Your task to perform on an android device: turn on translation in the chrome app Image 0: 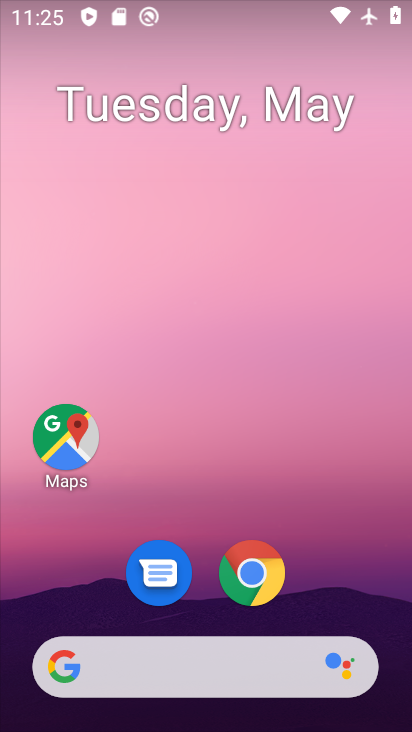
Step 0: click (236, 580)
Your task to perform on an android device: turn on translation in the chrome app Image 1: 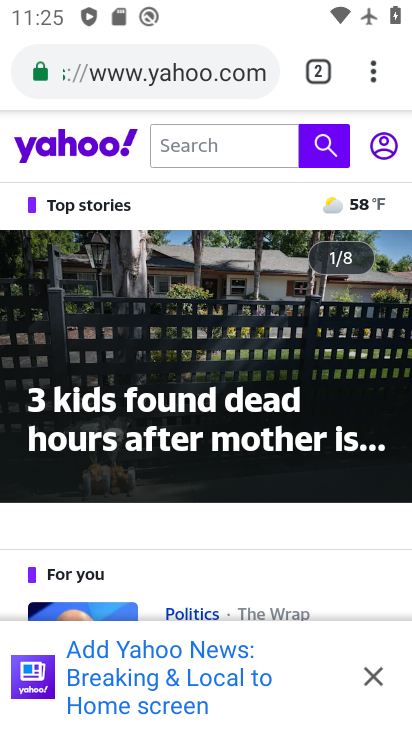
Step 1: click (374, 69)
Your task to perform on an android device: turn on translation in the chrome app Image 2: 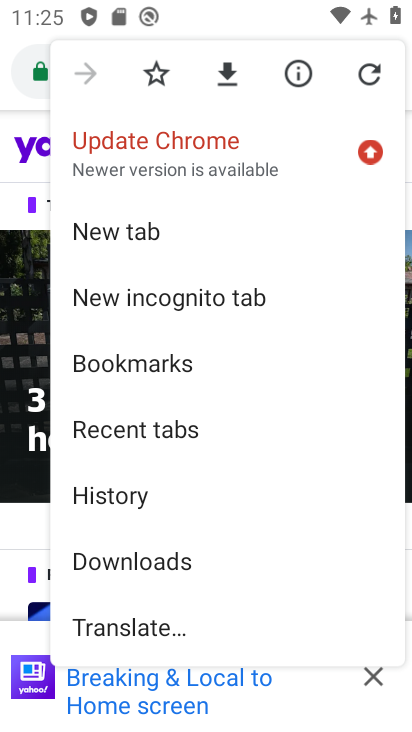
Step 2: drag from (167, 627) to (150, 335)
Your task to perform on an android device: turn on translation in the chrome app Image 3: 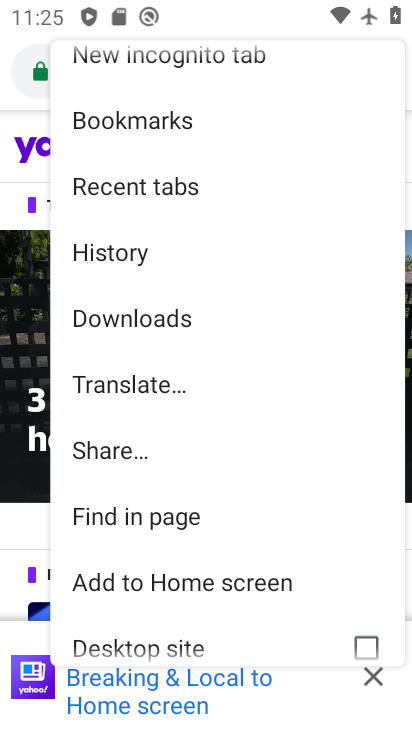
Step 3: drag from (136, 611) to (144, 316)
Your task to perform on an android device: turn on translation in the chrome app Image 4: 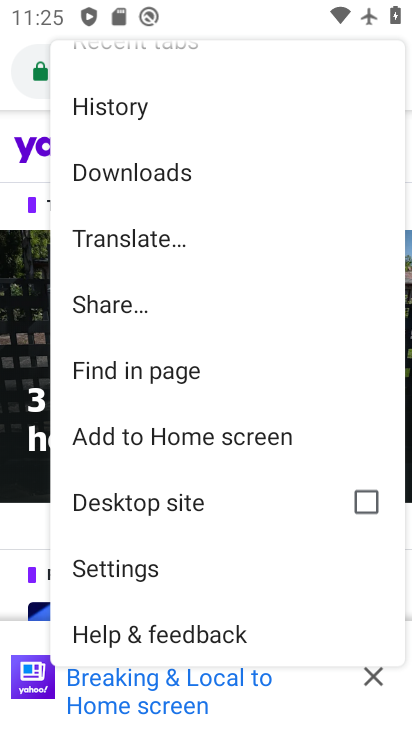
Step 4: drag from (193, 328) to (199, 281)
Your task to perform on an android device: turn on translation in the chrome app Image 5: 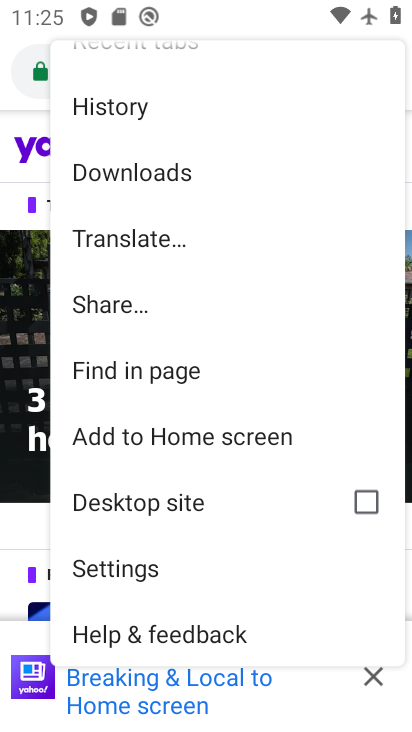
Step 5: click (145, 559)
Your task to perform on an android device: turn on translation in the chrome app Image 6: 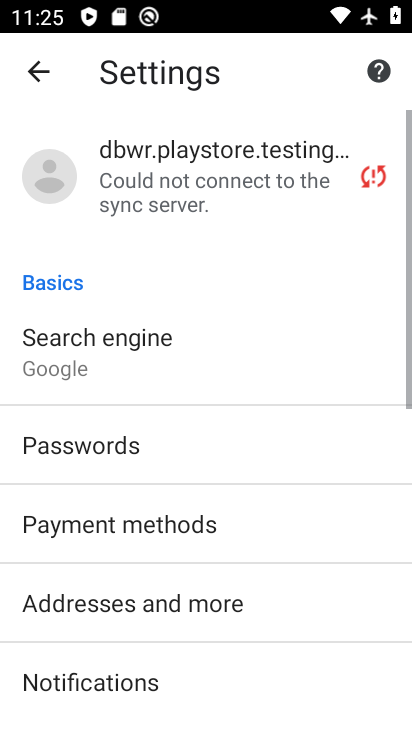
Step 6: click (126, 573)
Your task to perform on an android device: turn on translation in the chrome app Image 7: 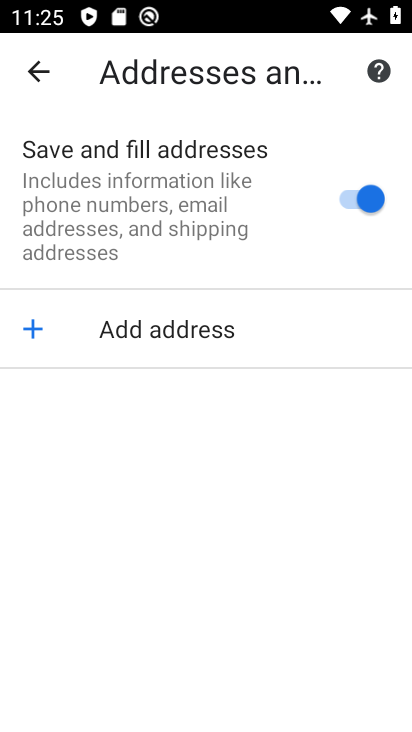
Step 7: click (26, 75)
Your task to perform on an android device: turn on translation in the chrome app Image 8: 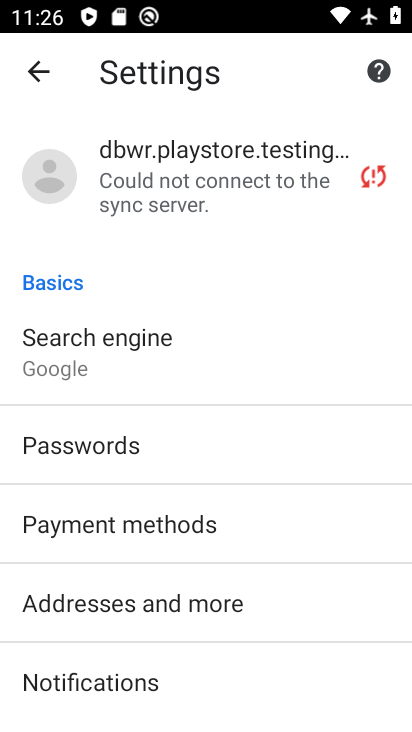
Step 8: drag from (155, 695) to (159, 370)
Your task to perform on an android device: turn on translation in the chrome app Image 9: 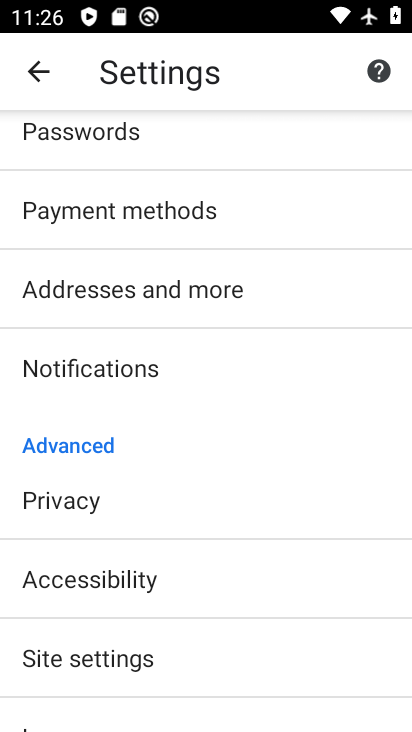
Step 9: drag from (135, 643) to (171, 377)
Your task to perform on an android device: turn on translation in the chrome app Image 10: 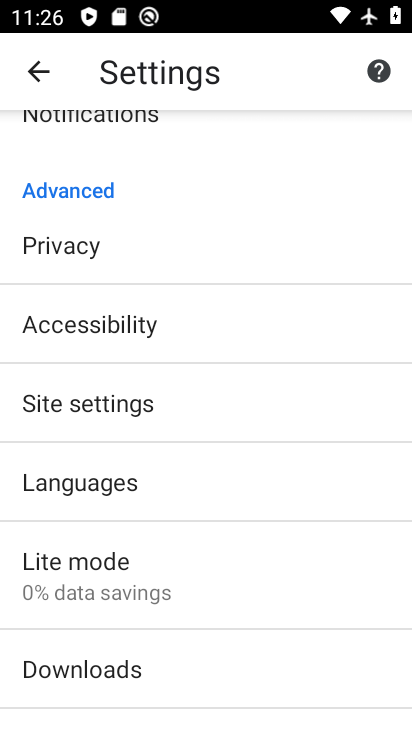
Step 10: click (98, 476)
Your task to perform on an android device: turn on translation in the chrome app Image 11: 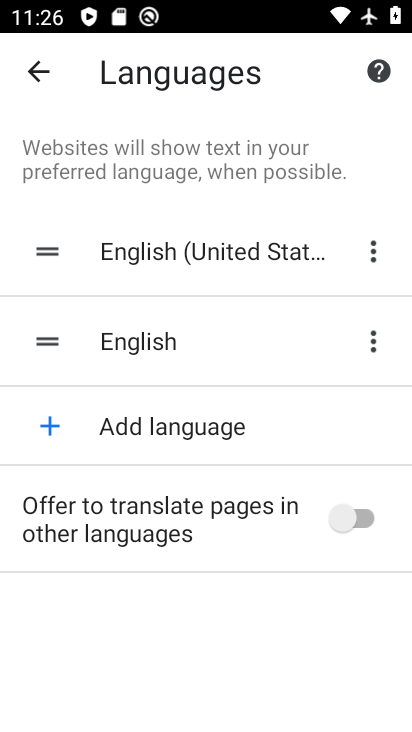
Step 11: click (362, 517)
Your task to perform on an android device: turn on translation in the chrome app Image 12: 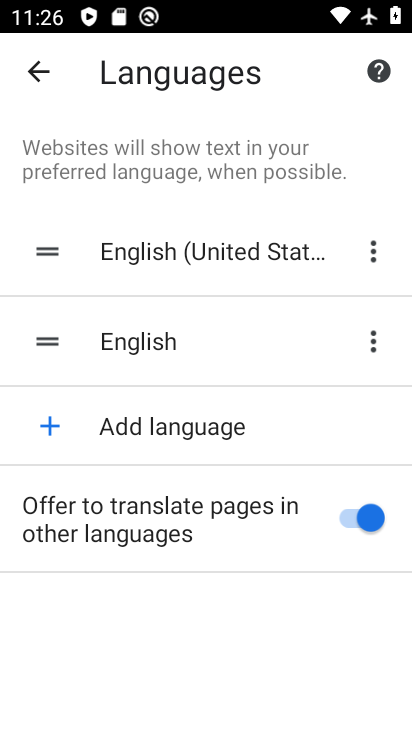
Step 12: task complete